Your task to perform on an android device: Search for sushi restaurants on Maps Image 0: 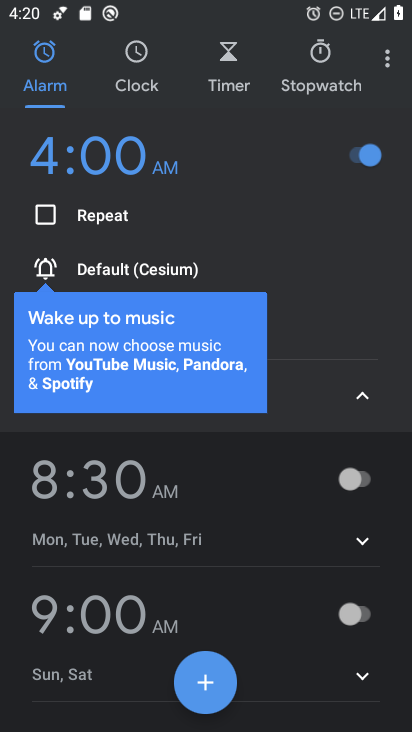
Step 0: press home button
Your task to perform on an android device: Search for sushi restaurants on Maps Image 1: 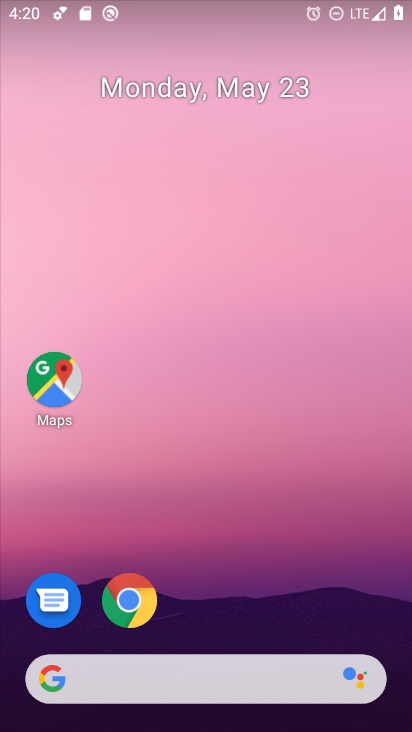
Step 1: click (52, 380)
Your task to perform on an android device: Search for sushi restaurants on Maps Image 2: 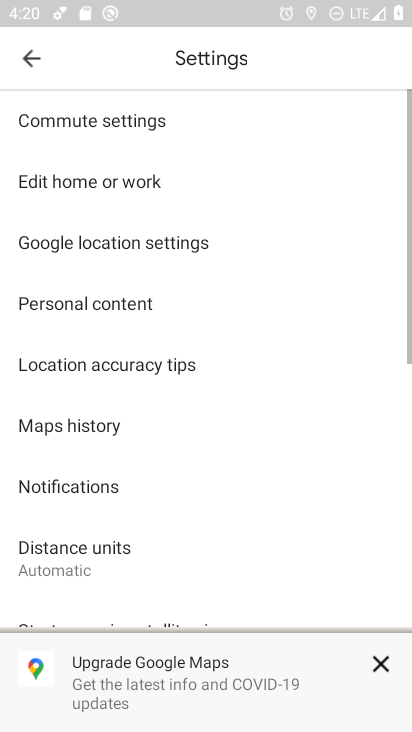
Step 2: click (35, 72)
Your task to perform on an android device: Search for sushi restaurants on Maps Image 3: 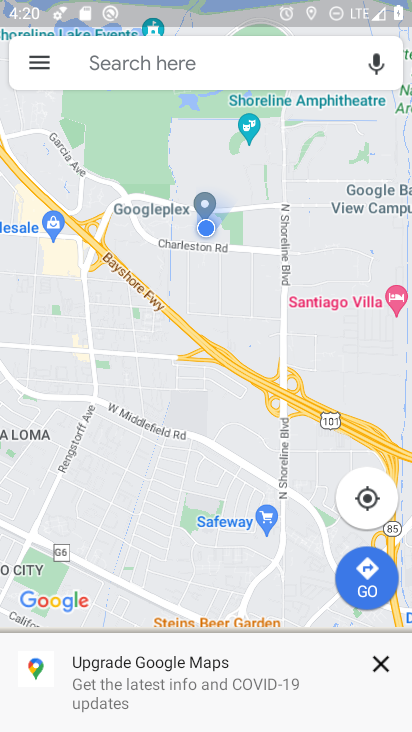
Step 3: click (87, 64)
Your task to perform on an android device: Search for sushi restaurants on Maps Image 4: 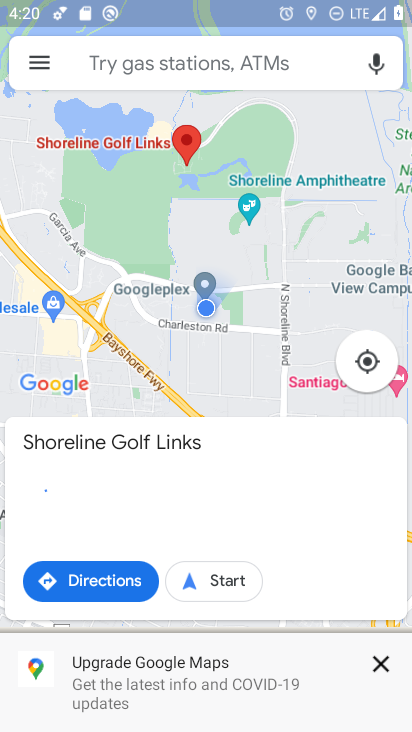
Step 4: click (106, 68)
Your task to perform on an android device: Search for sushi restaurants on Maps Image 5: 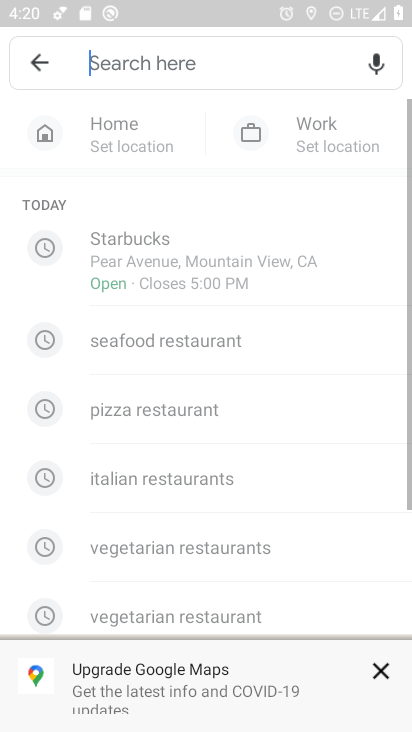
Step 5: click (100, 63)
Your task to perform on an android device: Search for sushi restaurants on Maps Image 6: 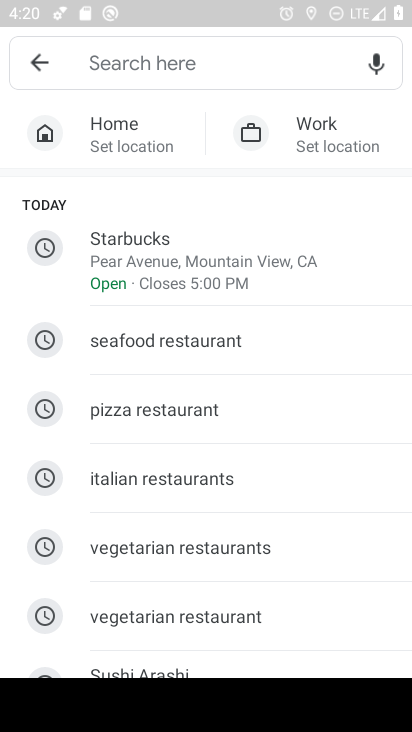
Step 6: type "sushi restaurant"
Your task to perform on an android device: Search for sushi restaurants on Maps Image 7: 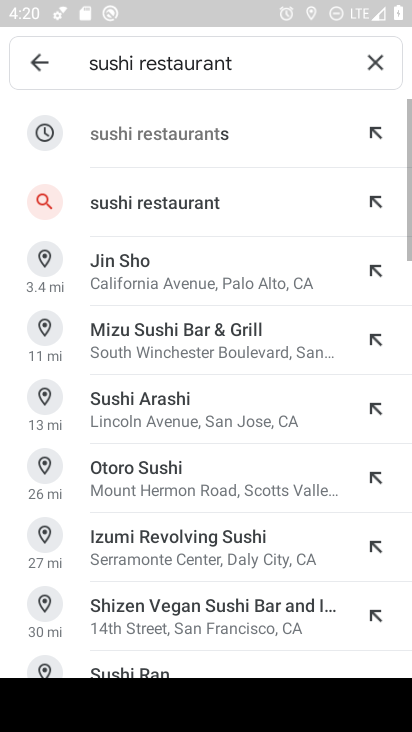
Step 7: click (140, 134)
Your task to perform on an android device: Search for sushi restaurants on Maps Image 8: 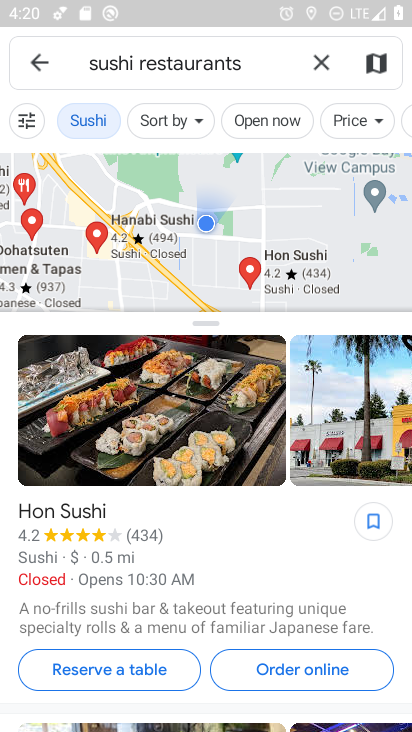
Step 8: task complete